Your task to perform on an android device: star an email in the gmail app Image 0: 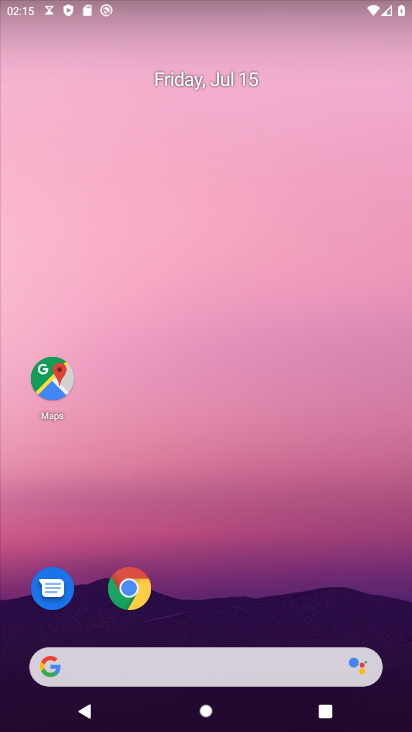
Step 0: drag from (213, 671) to (354, 151)
Your task to perform on an android device: star an email in the gmail app Image 1: 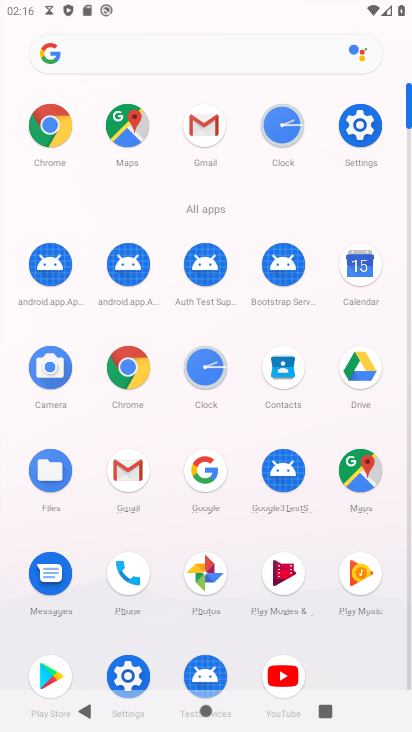
Step 1: click (205, 127)
Your task to perform on an android device: star an email in the gmail app Image 2: 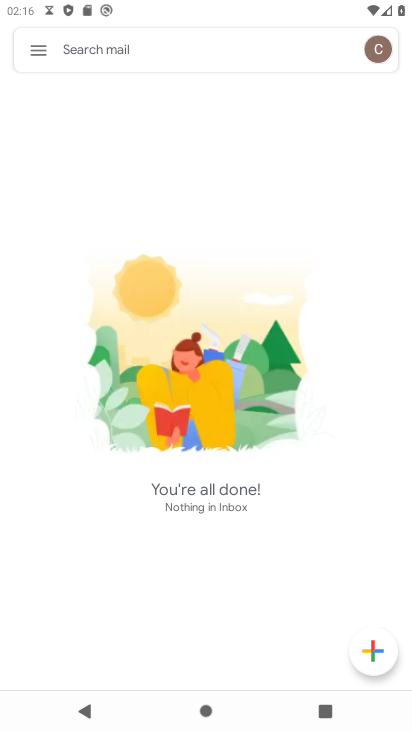
Step 2: task complete